Your task to perform on an android device: change the clock display to show seconds Image 0: 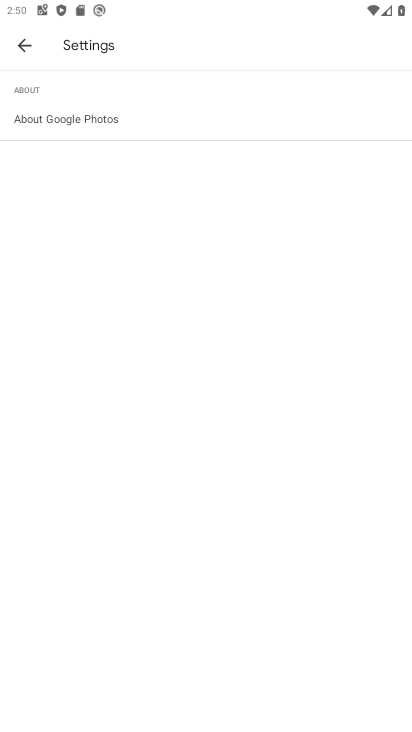
Step 0: drag from (264, 612) to (234, 396)
Your task to perform on an android device: change the clock display to show seconds Image 1: 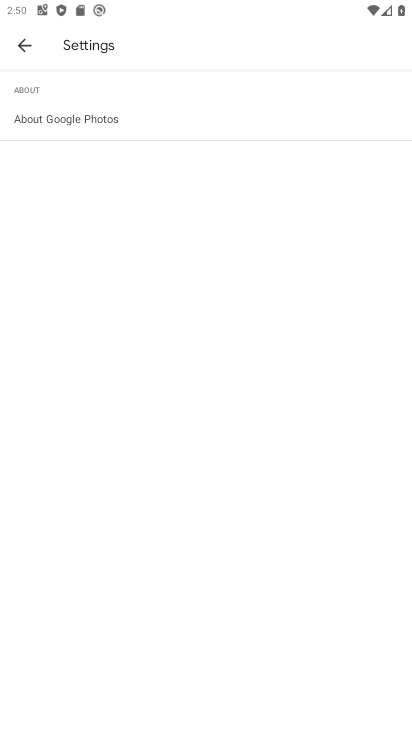
Step 1: press home button
Your task to perform on an android device: change the clock display to show seconds Image 2: 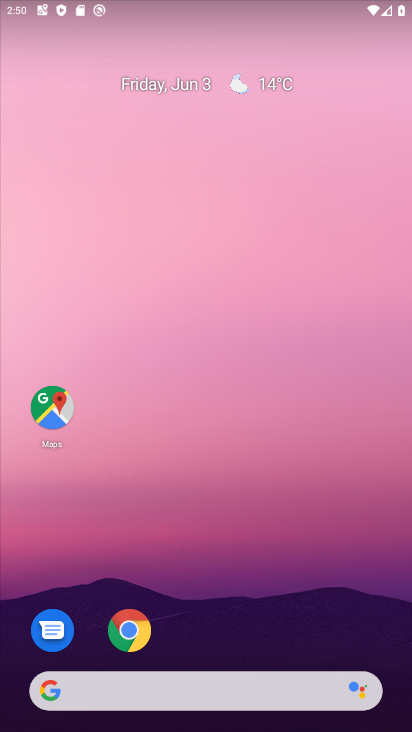
Step 2: drag from (238, 637) to (174, 274)
Your task to perform on an android device: change the clock display to show seconds Image 3: 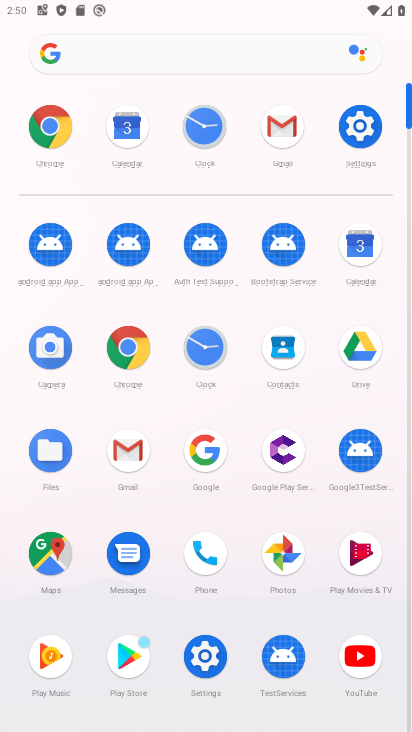
Step 3: click (205, 128)
Your task to perform on an android device: change the clock display to show seconds Image 4: 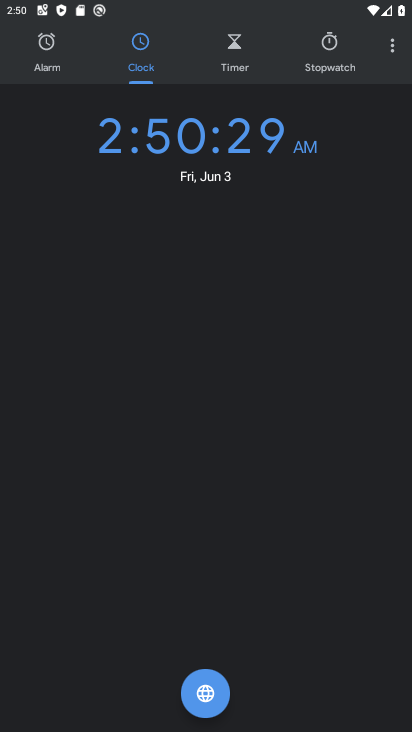
Step 4: click (401, 49)
Your task to perform on an android device: change the clock display to show seconds Image 5: 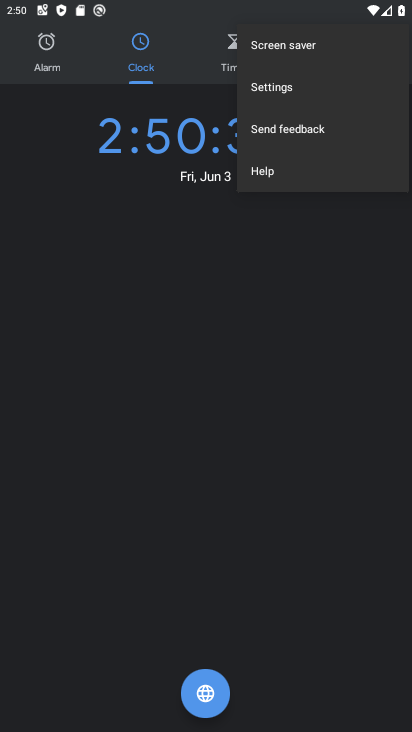
Step 5: click (360, 80)
Your task to perform on an android device: change the clock display to show seconds Image 6: 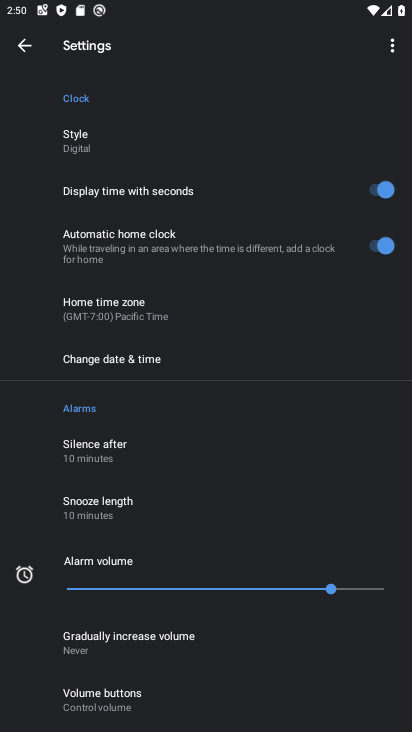
Step 6: task complete